Your task to perform on an android device: Go to Google maps Image 0: 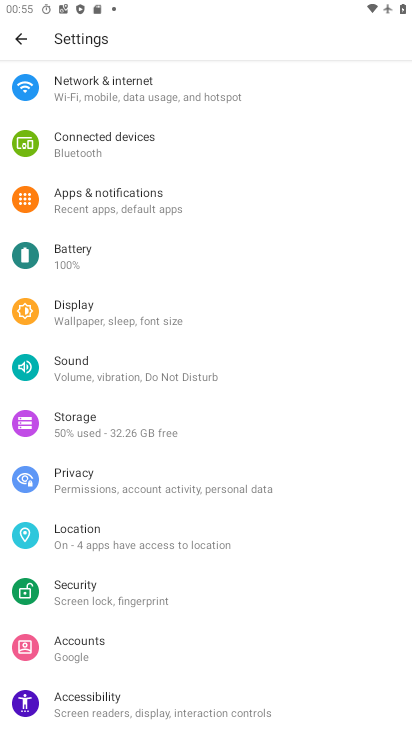
Step 0: press home button
Your task to perform on an android device: Go to Google maps Image 1: 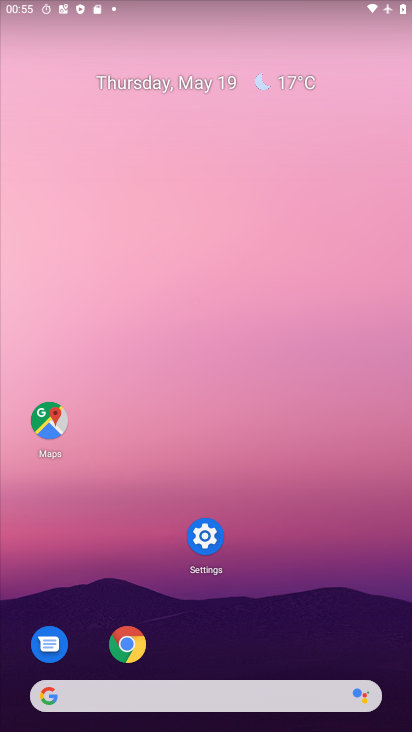
Step 1: click (49, 408)
Your task to perform on an android device: Go to Google maps Image 2: 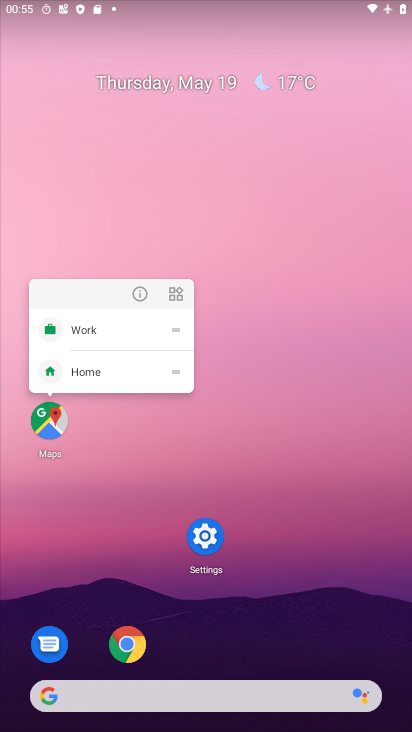
Step 2: click (44, 414)
Your task to perform on an android device: Go to Google maps Image 3: 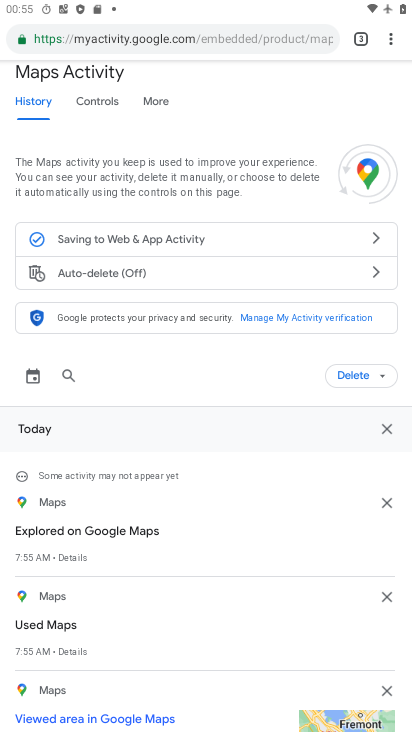
Step 3: task complete